Your task to perform on an android device: Go to network settings Image 0: 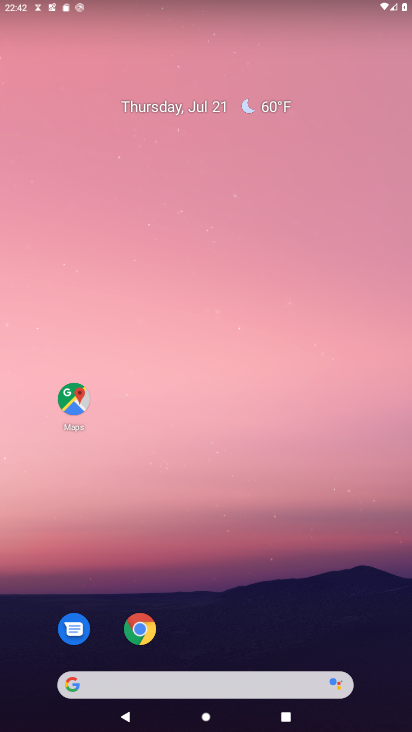
Step 0: drag from (232, 362) to (276, 66)
Your task to perform on an android device: Go to network settings Image 1: 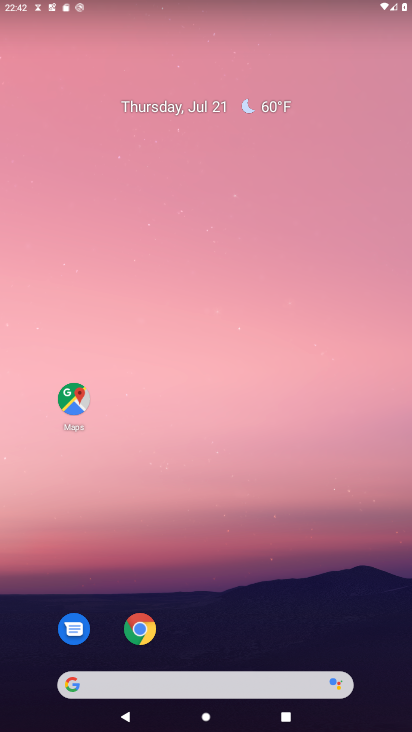
Step 1: drag from (198, 662) to (197, 250)
Your task to perform on an android device: Go to network settings Image 2: 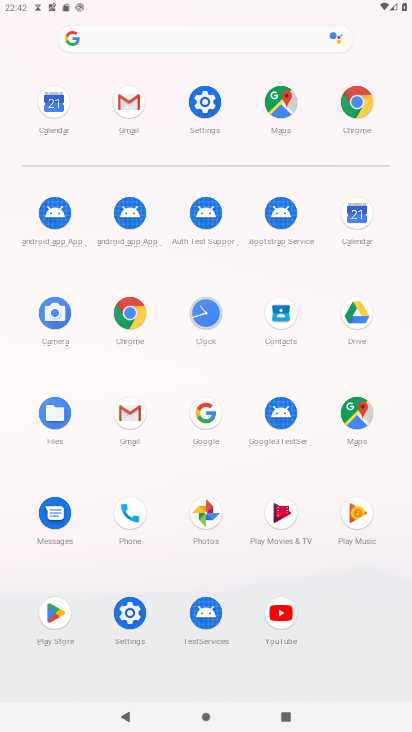
Step 2: click (212, 100)
Your task to perform on an android device: Go to network settings Image 3: 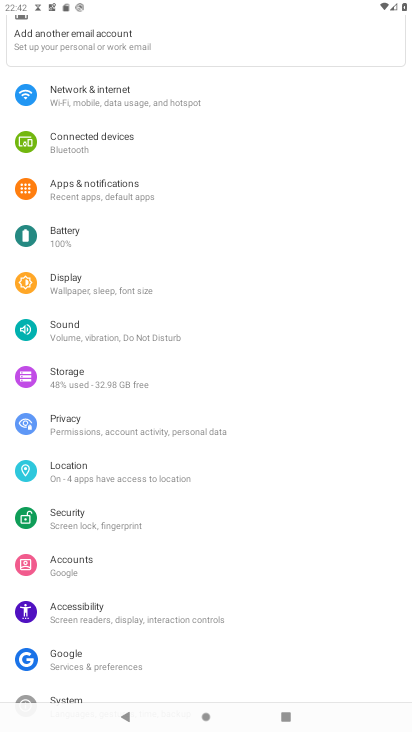
Step 3: click (87, 99)
Your task to perform on an android device: Go to network settings Image 4: 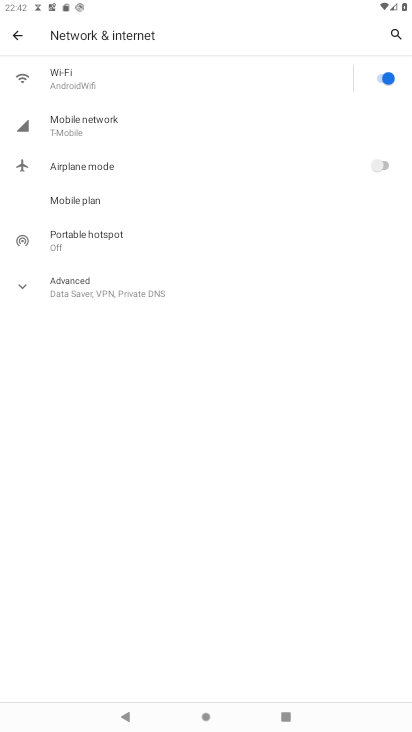
Step 4: task complete